Your task to perform on an android device: Show me popular games on the Play Store Image 0: 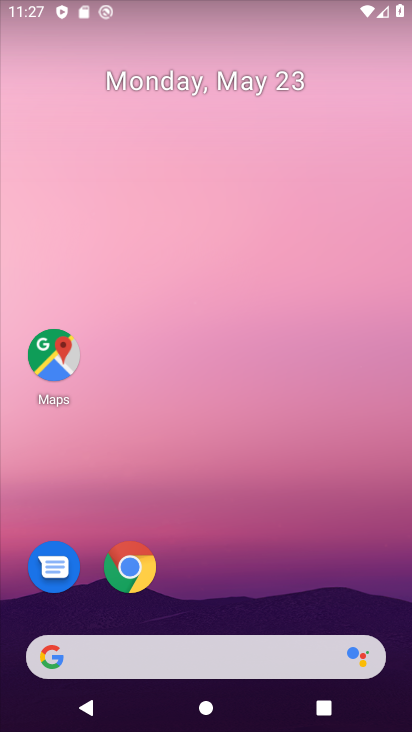
Step 0: drag from (337, 560) to (310, 185)
Your task to perform on an android device: Show me popular games on the Play Store Image 1: 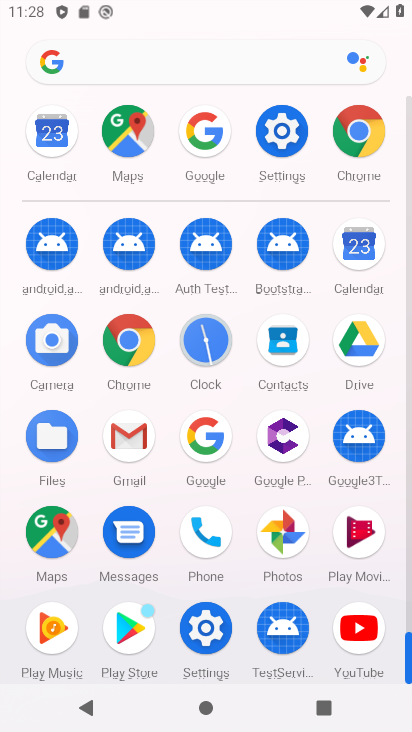
Step 1: click (116, 628)
Your task to perform on an android device: Show me popular games on the Play Store Image 2: 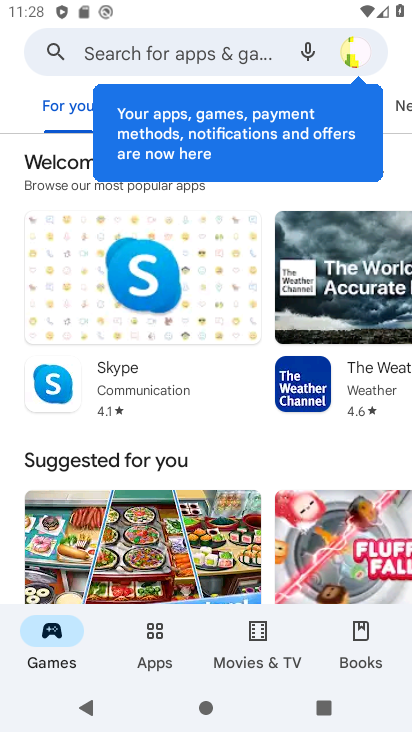
Step 2: click (161, 631)
Your task to perform on an android device: Show me popular games on the Play Store Image 3: 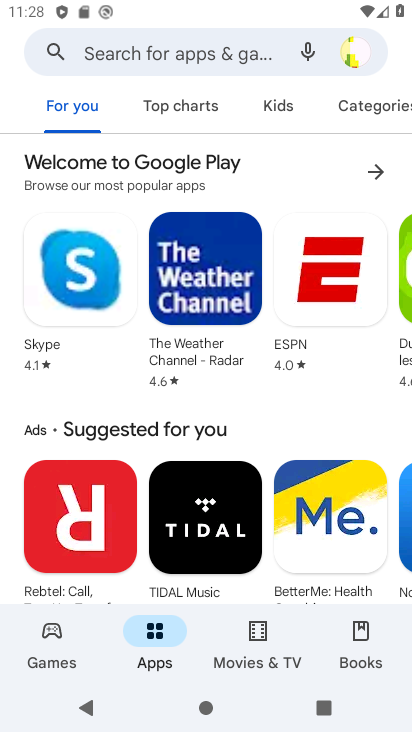
Step 3: click (63, 639)
Your task to perform on an android device: Show me popular games on the Play Store Image 4: 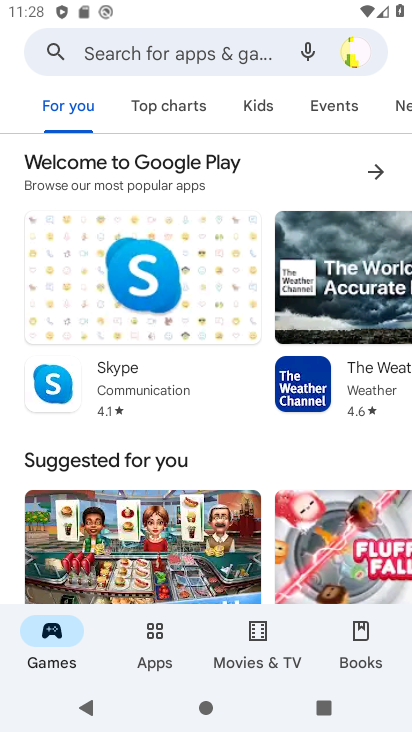
Step 4: click (182, 102)
Your task to perform on an android device: Show me popular games on the Play Store Image 5: 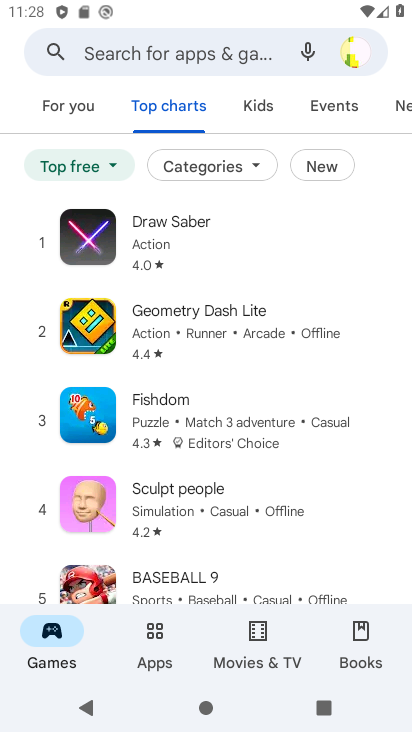
Step 5: task complete